Your task to perform on an android device: Go to Maps Image 0: 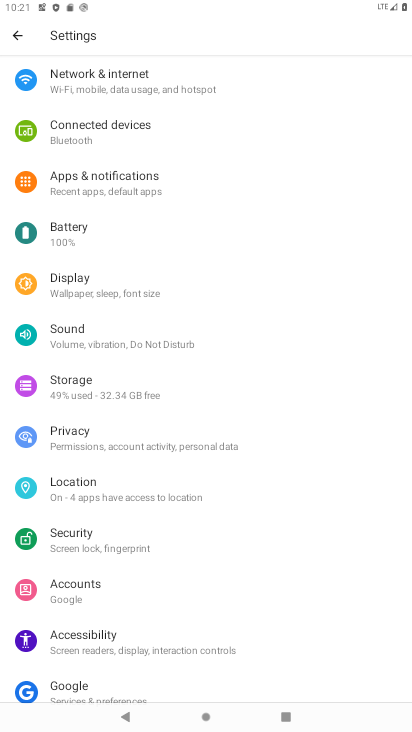
Step 0: press home button
Your task to perform on an android device: Go to Maps Image 1: 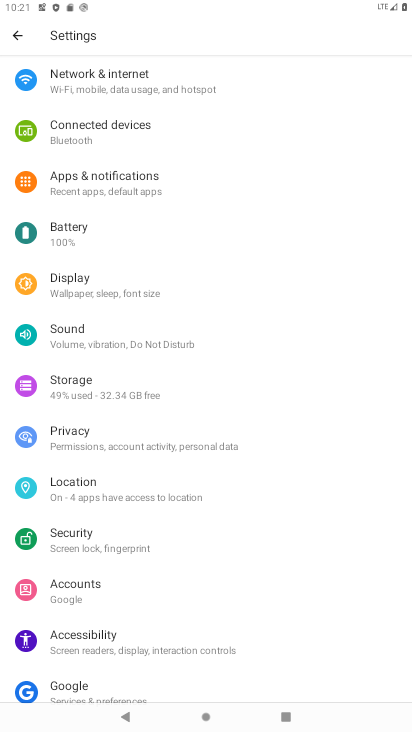
Step 1: drag from (292, 635) to (245, 11)
Your task to perform on an android device: Go to Maps Image 2: 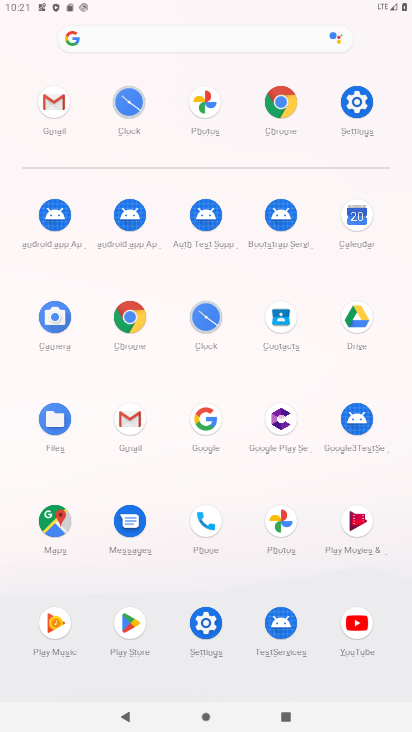
Step 2: click (66, 517)
Your task to perform on an android device: Go to Maps Image 3: 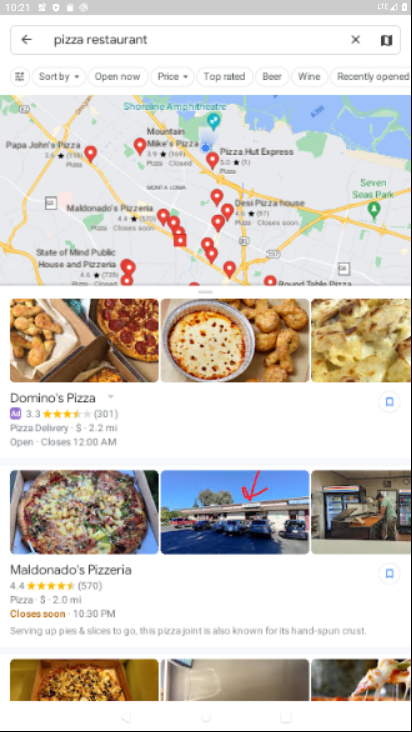
Step 3: task complete